Your task to perform on an android device: stop showing notifications on the lock screen Image 0: 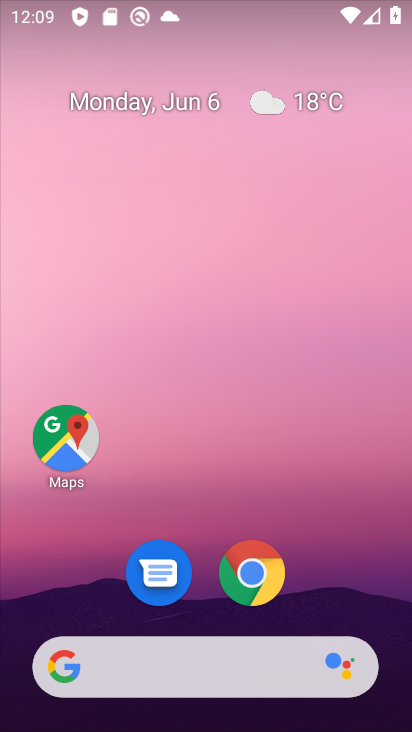
Step 0: drag from (85, 634) to (220, 36)
Your task to perform on an android device: stop showing notifications on the lock screen Image 1: 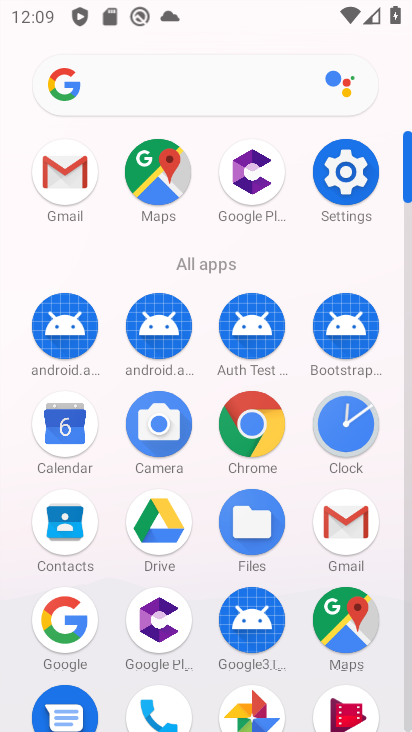
Step 1: drag from (199, 537) to (273, 246)
Your task to perform on an android device: stop showing notifications on the lock screen Image 2: 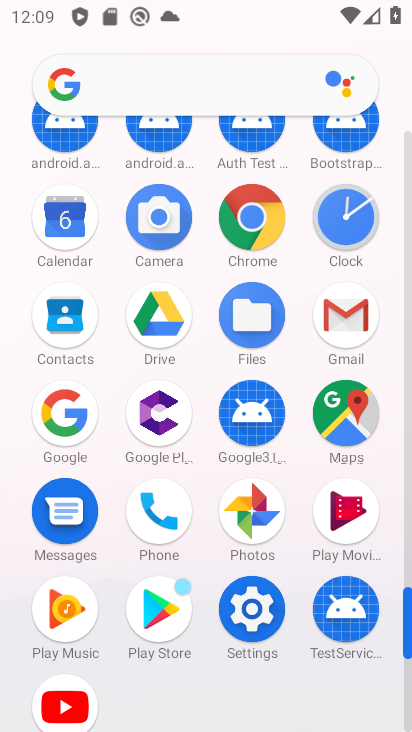
Step 2: click (241, 616)
Your task to perform on an android device: stop showing notifications on the lock screen Image 3: 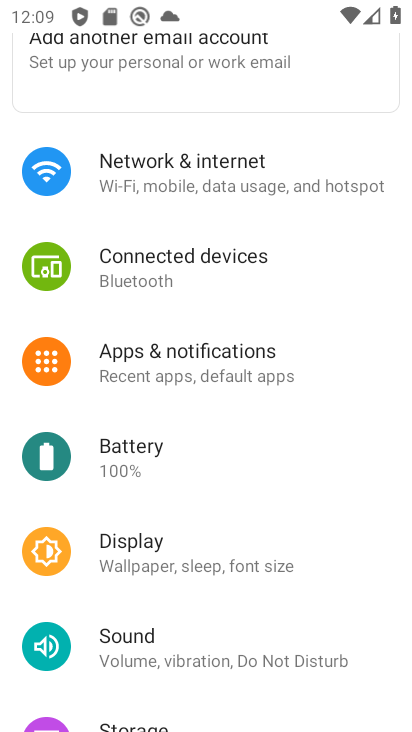
Step 3: click (241, 371)
Your task to perform on an android device: stop showing notifications on the lock screen Image 4: 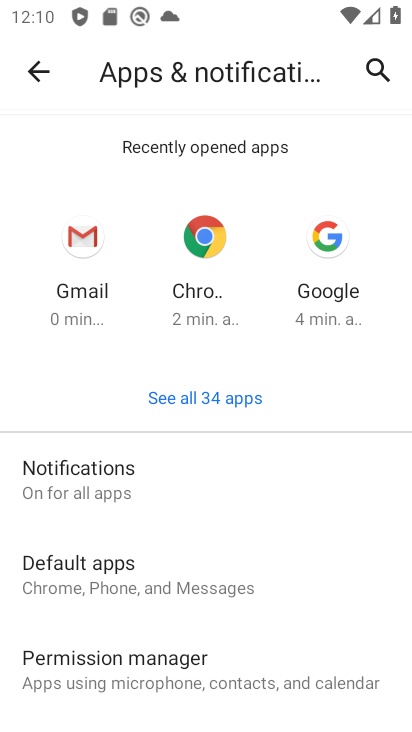
Step 4: click (164, 475)
Your task to perform on an android device: stop showing notifications on the lock screen Image 5: 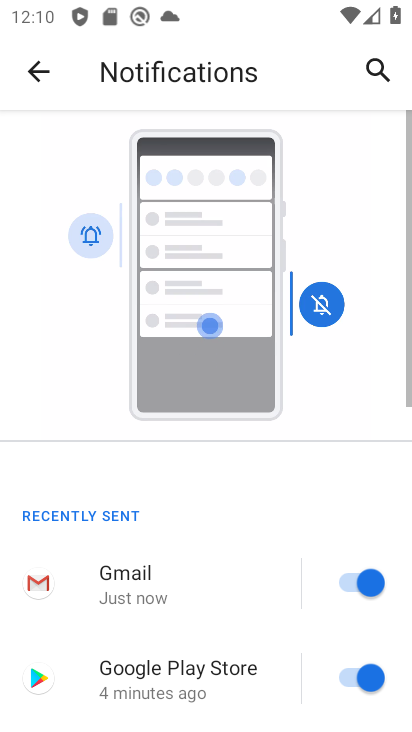
Step 5: drag from (195, 625) to (342, 153)
Your task to perform on an android device: stop showing notifications on the lock screen Image 6: 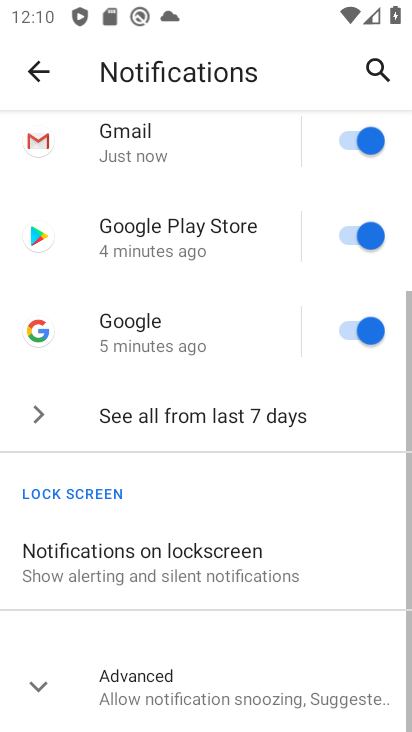
Step 6: drag from (263, 543) to (340, 140)
Your task to perform on an android device: stop showing notifications on the lock screen Image 7: 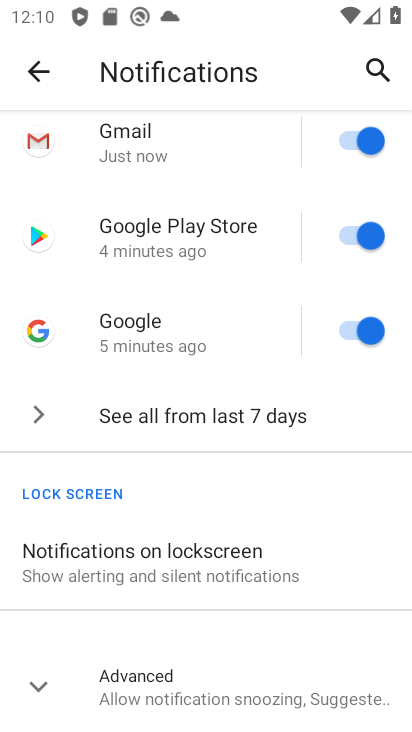
Step 7: click (187, 670)
Your task to perform on an android device: stop showing notifications on the lock screen Image 8: 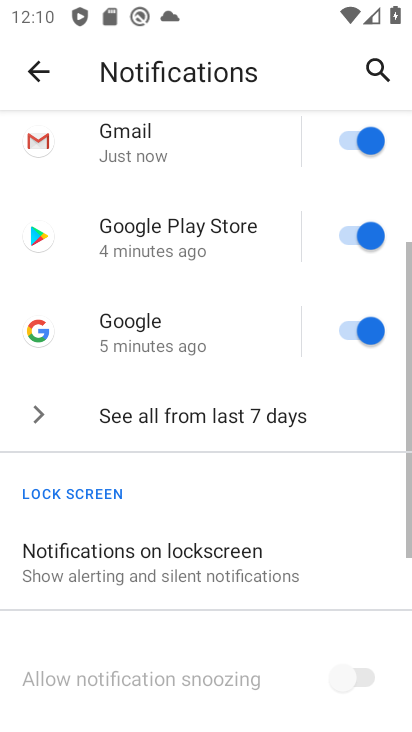
Step 8: drag from (189, 667) to (277, 243)
Your task to perform on an android device: stop showing notifications on the lock screen Image 9: 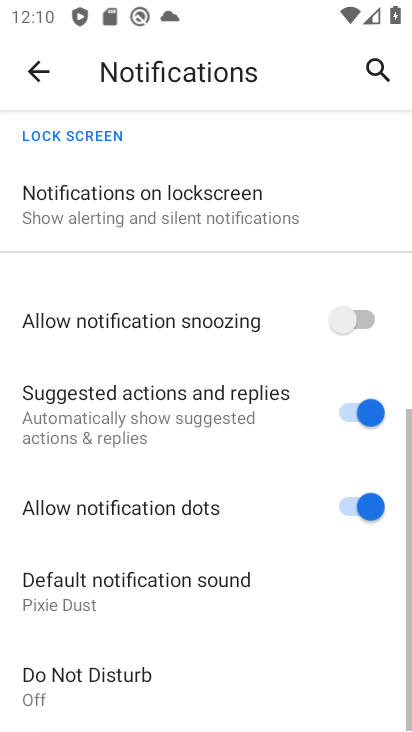
Step 9: drag from (159, 558) to (231, 256)
Your task to perform on an android device: stop showing notifications on the lock screen Image 10: 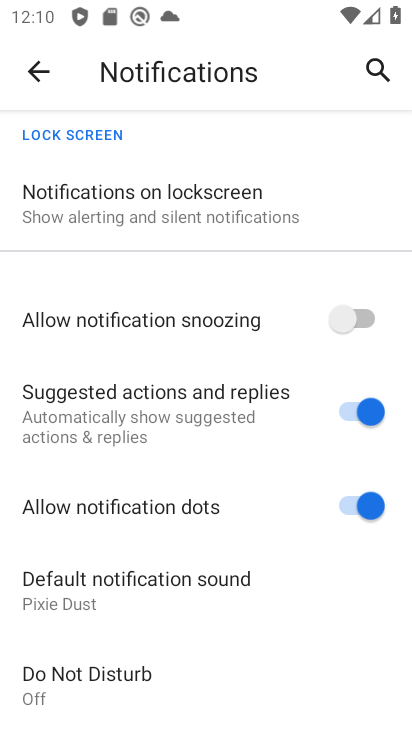
Step 10: click (240, 164)
Your task to perform on an android device: stop showing notifications on the lock screen Image 11: 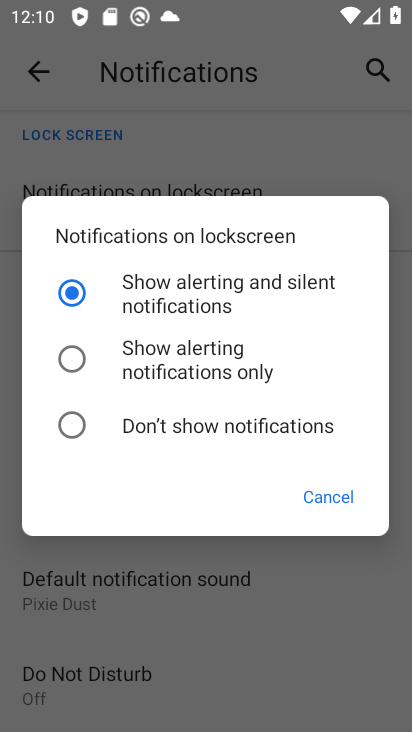
Step 11: click (266, 419)
Your task to perform on an android device: stop showing notifications on the lock screen Image 12: 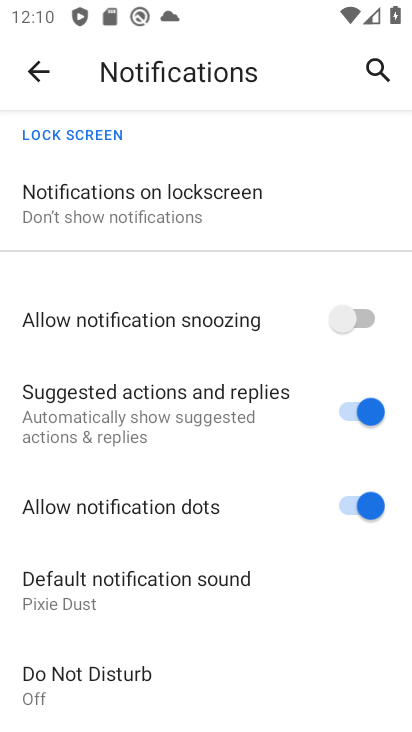
Step 12: task complete